Your task to perform on an android device: Is it going to rain tomorrow? Image 0: 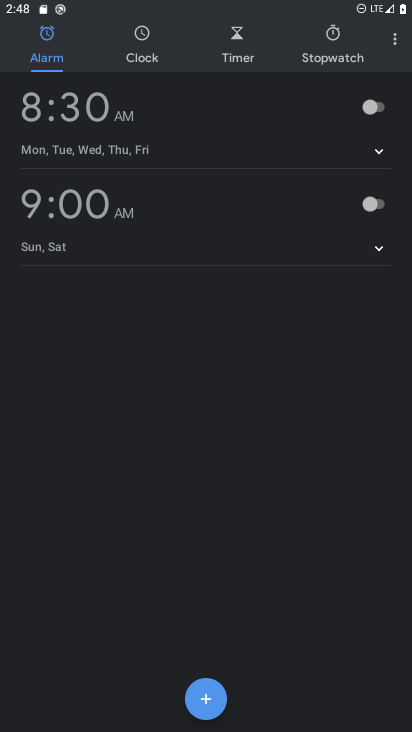
Step 0: drag from (290, 695) to (365, 435)
Your task to perform on an android device: Is it going to rain tomorrow? Image 1: 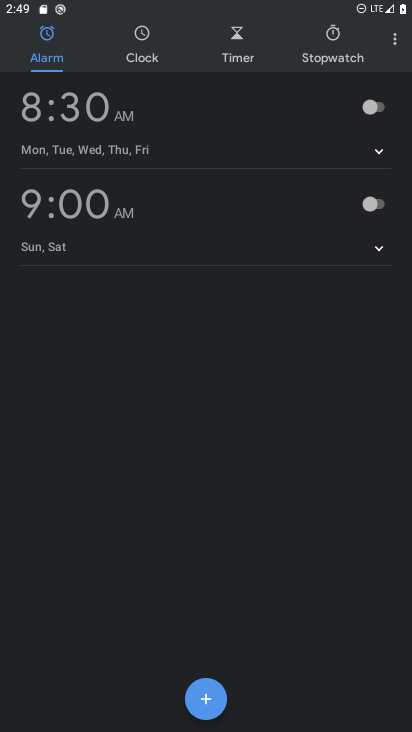
Step 1: press home button
Your task to perform on an android device: Is it going to rain tomorrow? Image 2: 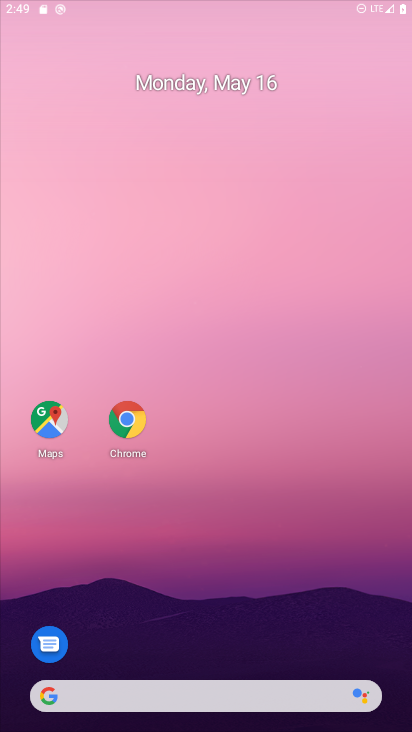
Step 2: drag from (289, 713) to (411, 137)
Your task to perform on an android device: Is it going to rain tomorrow? Image 3: 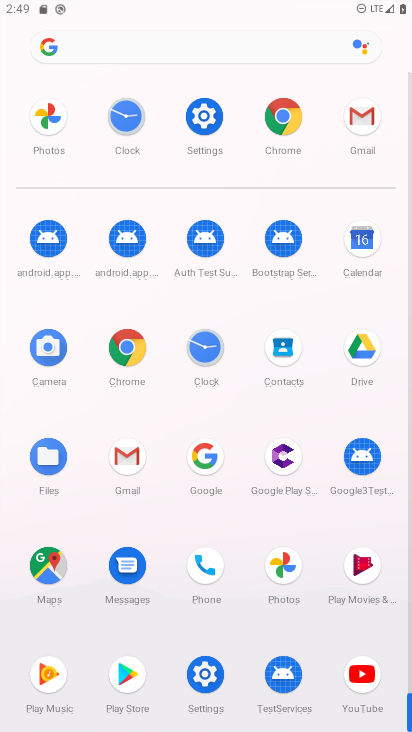
Step 3: click (184, 44)
Your task to perform on an android device: Is it going to rain tomorrow? Image 4: 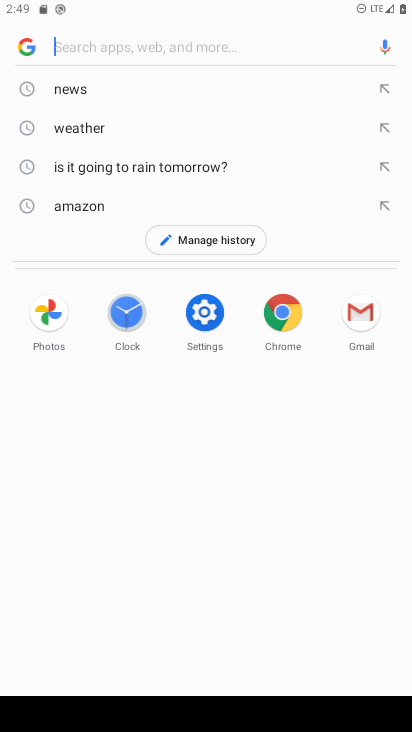
Step 4: type "rain tomorrow"
Your task to perform on an android device: Is it going to rain tomorrow? Image 5: 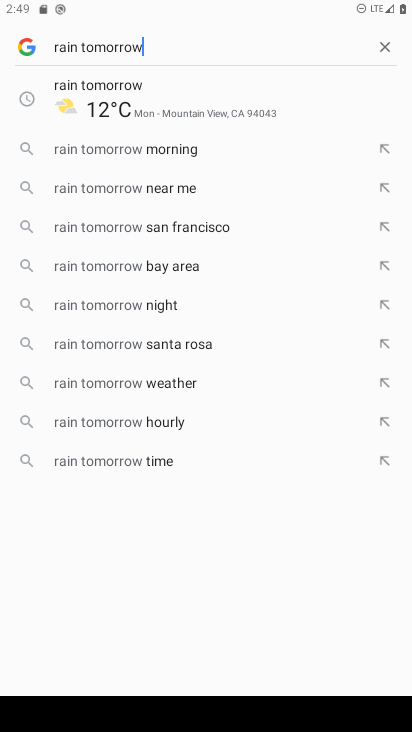
Step 5: click (118, 89)
Your task to perform on an android device: Is it going to rain tomorrow? Image 6: 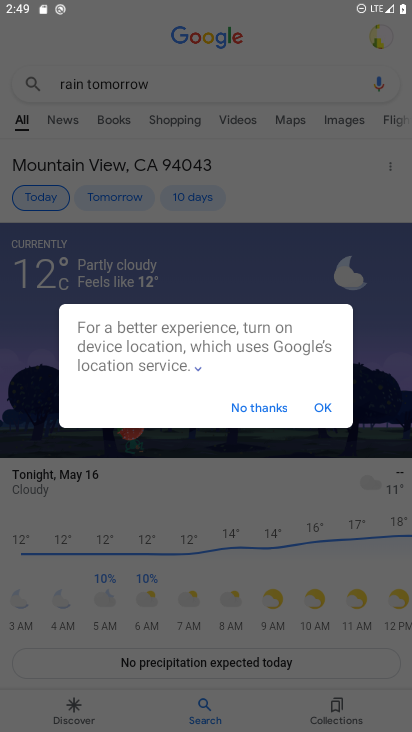
Step 6: click (325, 409)
Your task to perform on an android device: Is it going to rain tomorrow? Image 7: 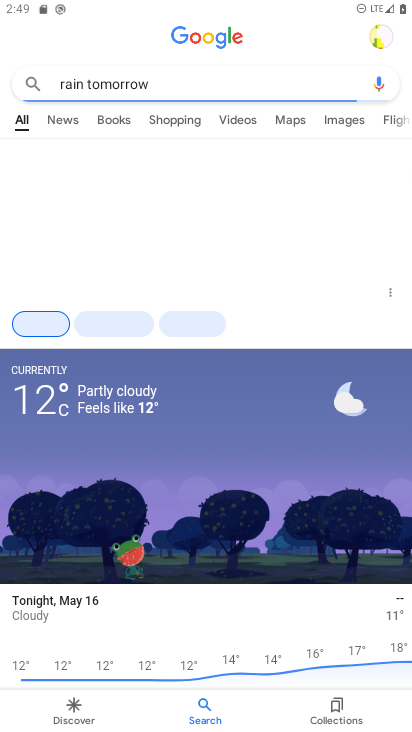
Step 7: task complete